Your task to perform on an android device: What's the weather going to be this weekend? Image 0: 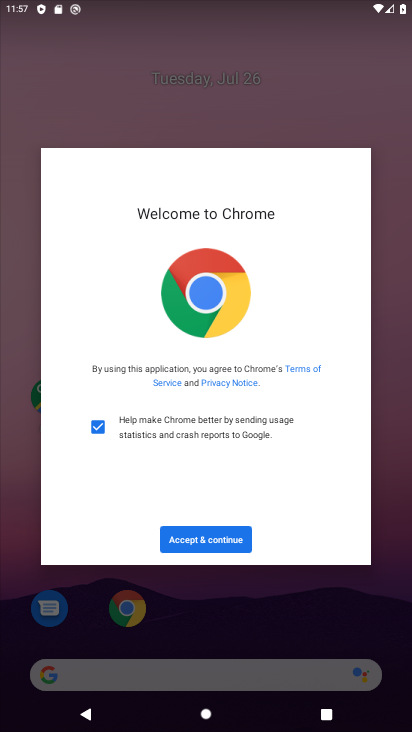
Step 0: press home button
Your task to perform on an android device: What's the weather going to be this weekend? Image 1: 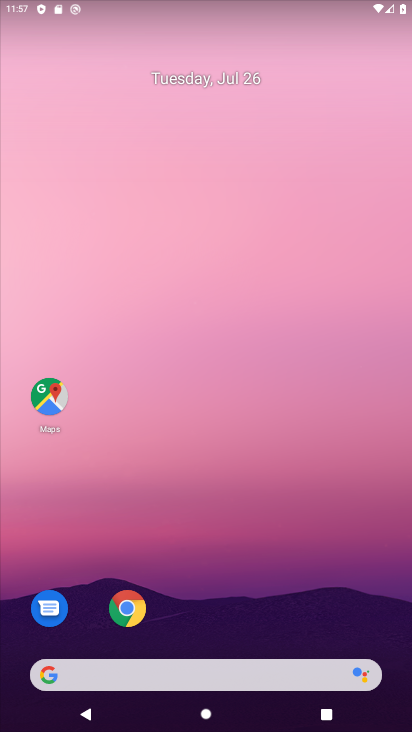
Step 1: click (224, 675)
Your task to perform on an android device: What's the weather going to be this weekend? Image 2: 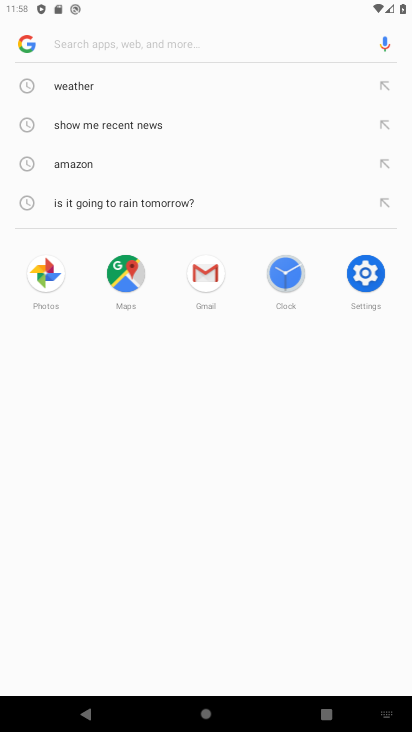
Step 2: click (102, 89)
Your task to perform on an android device: What's the weather going to be this weekend? Image 3: 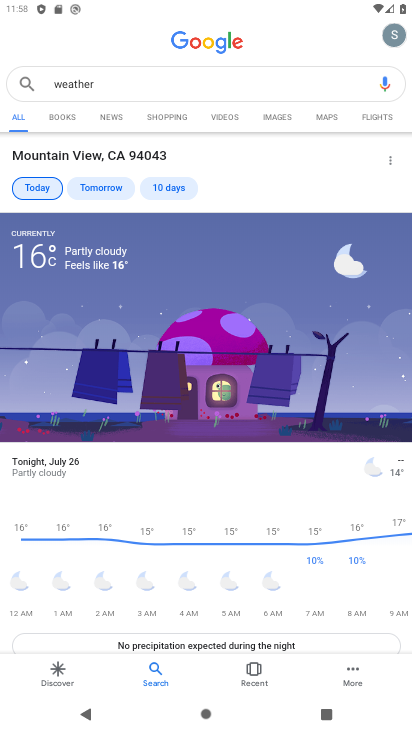
Step 3: click (156, 190)
Your task to perform on an android device: What's the weather going to be this weekend? Image 4: 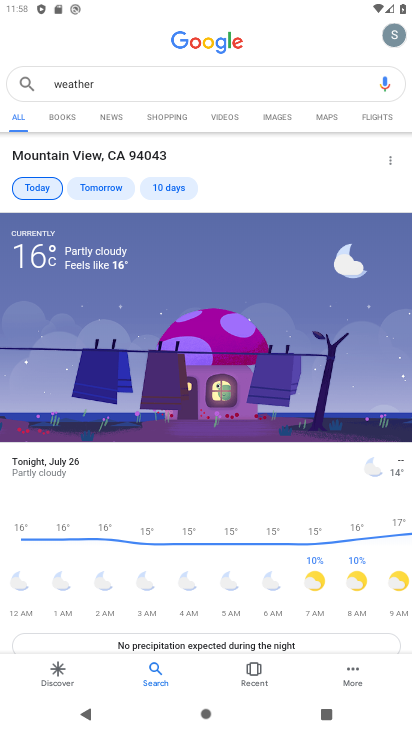
Step 4: click (176, 192)
Your task to perform on an android device: What's the weather going to be this weekend? Image 5: 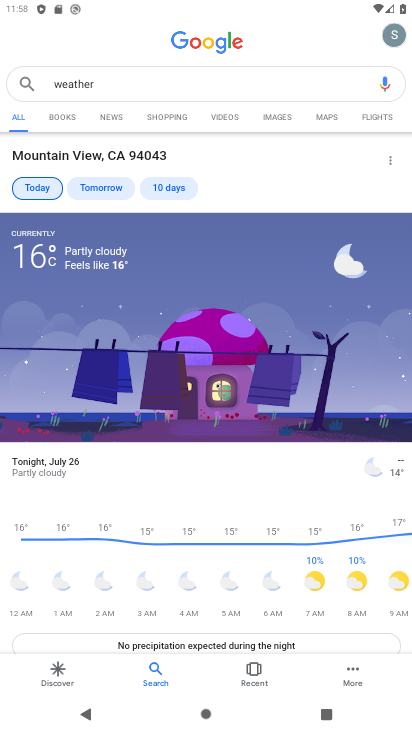
Step 5: click (163, 188)
Your task to perform on an android device: What's the weather going to be this weekend? Image 6: 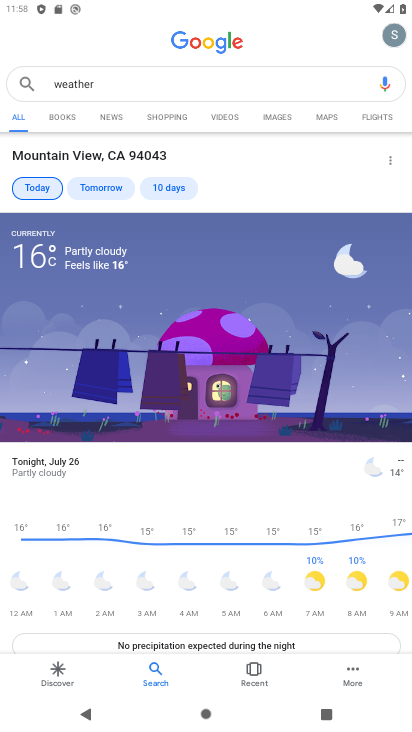
Step 6: click (163, 188)
Your task to perform on an android device: What's the weather going to be this weekend? Image 7: 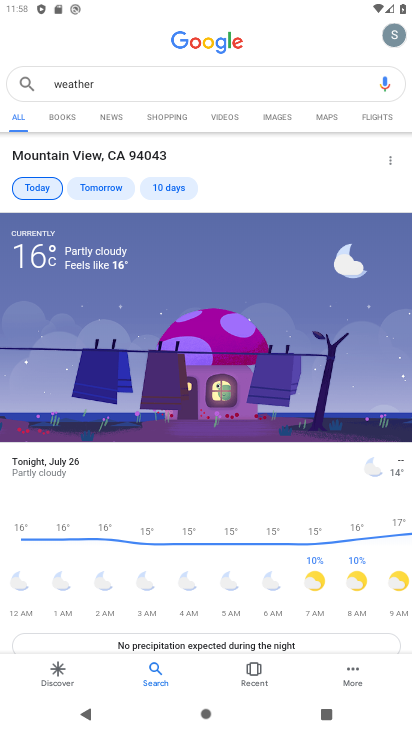
Step 7: task complete